Your task to perform on an android device: Do I have any events this weekend? Image 0: 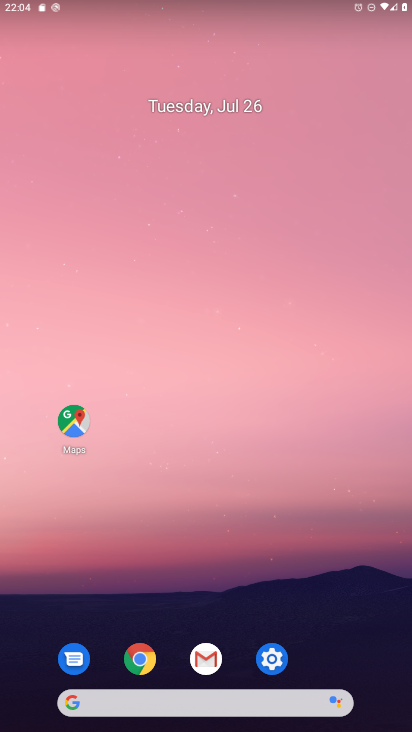
Step 0: drag from (263, 684) to (356, 218)
Your task to perform on an android device: Do I have any events this weekend? Image 1: 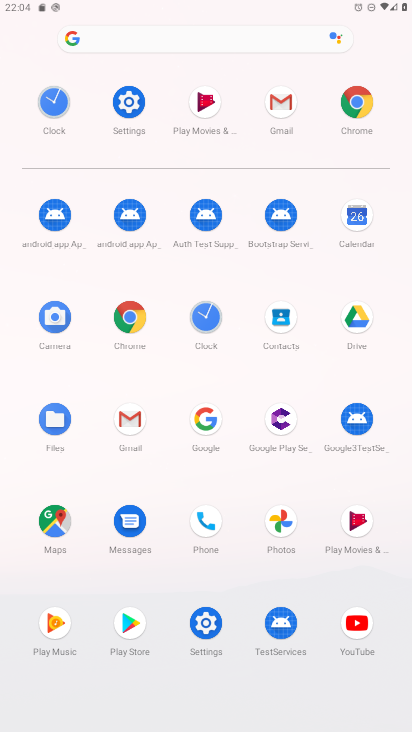
Step 1: click (350, 219)
Your task to perform on an android device: Do I have any events this weekend? Image 2: 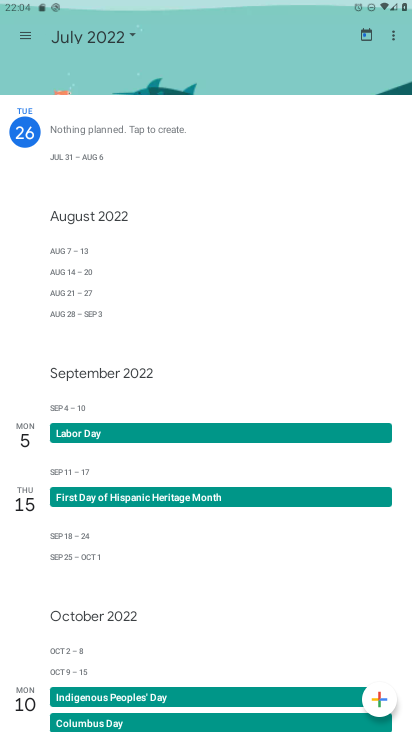
Step 2: click (26, 28)
Your task to perform on an android device: Do I have any events this weekend? Image 3: 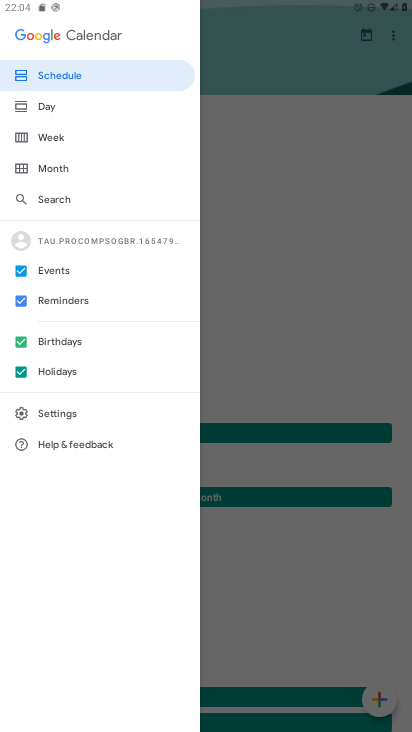
Step 3: click (44, 171)
Your task to perform on an android device: Do I have any events this weekend? Image 4: 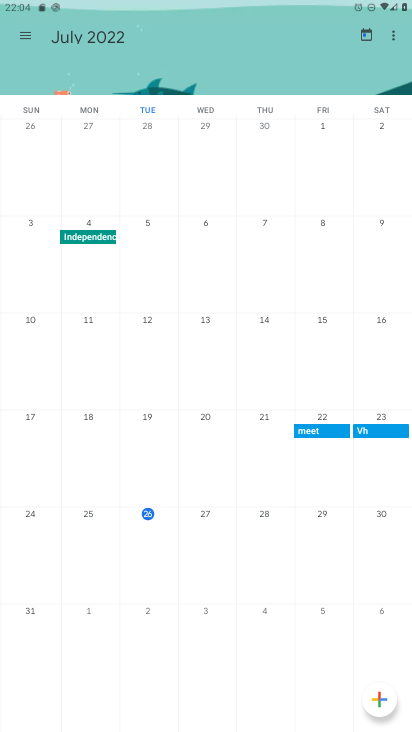
Step 4: click (139, 529)
Your task to perform on an android device: Do I have any events this weekend? Image 5: 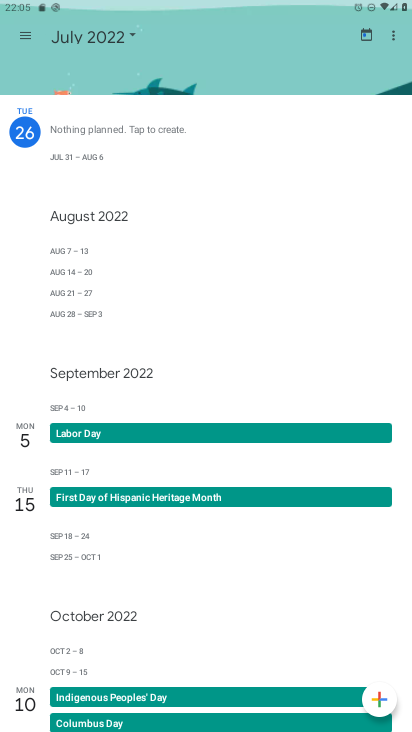
Step 5: task complete